Your task to perform on an android device: Go to notification settings Image 0: 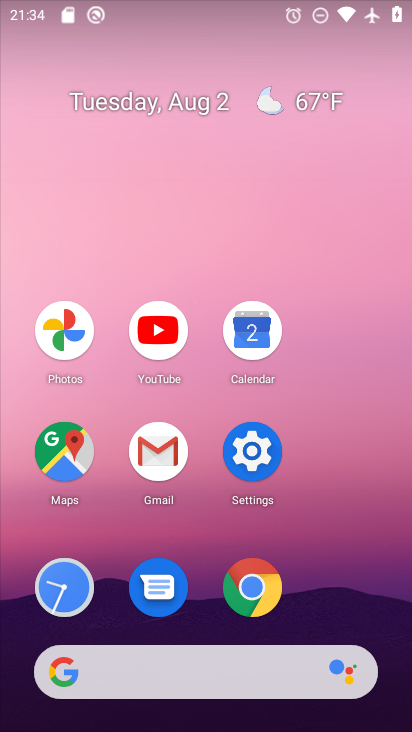
Step 0: click (250, 452)
Your task to perform on an android device: Go to notification settings Image 1: 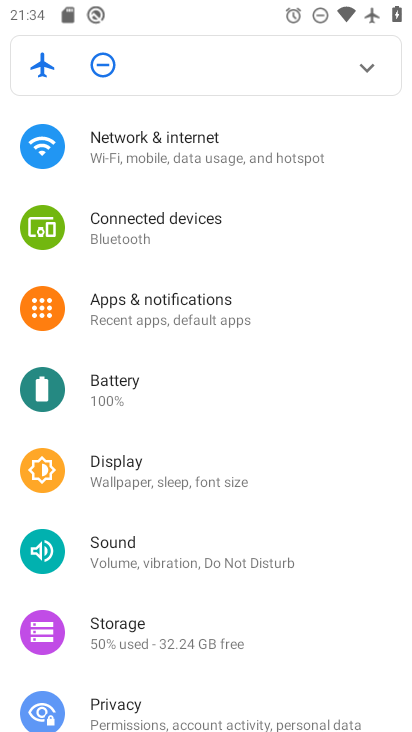
Step 1: click (164, 296)
Your task to perform on an android device: Go to notification settings Image 2: 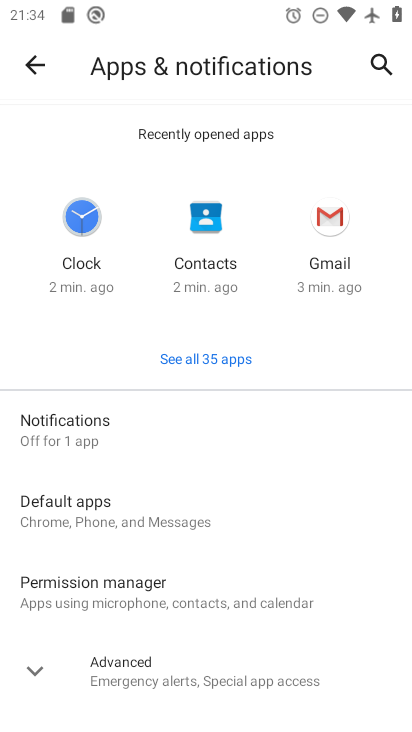
Step 2: task complete